Your task to perform on an android device: Do I have any events today? Image 0: 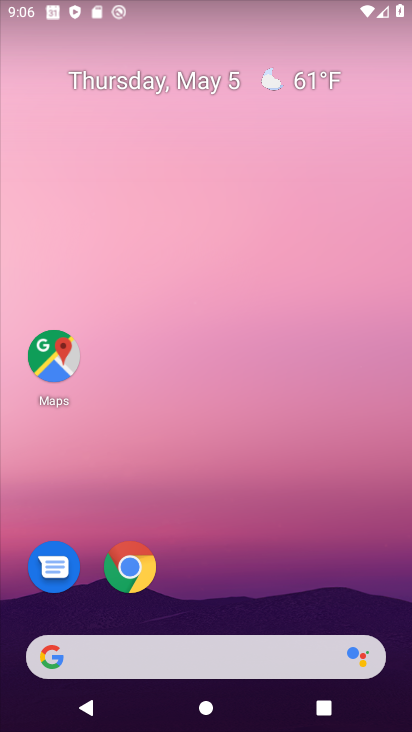
Step 0: drag from (236, 725) to (210, 146)
Your task to perform on an android device: Do I have any events today? Image 1: 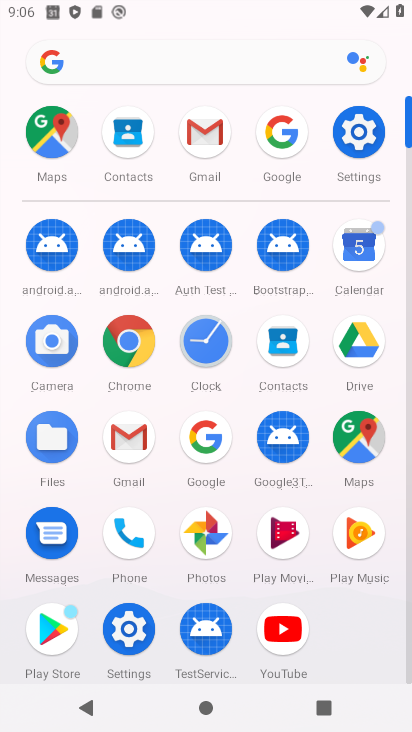
Step 1: click (357, 258)
Your task to perform on an android device: Do I have any events today? Image 2: 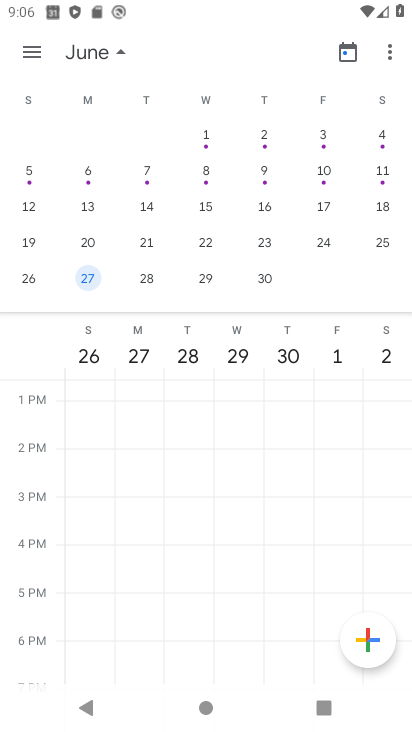
Step 2: drag from (13, 226) to (399, 185)
Your task to perform on an android device: Do I have any events today? Image 3: 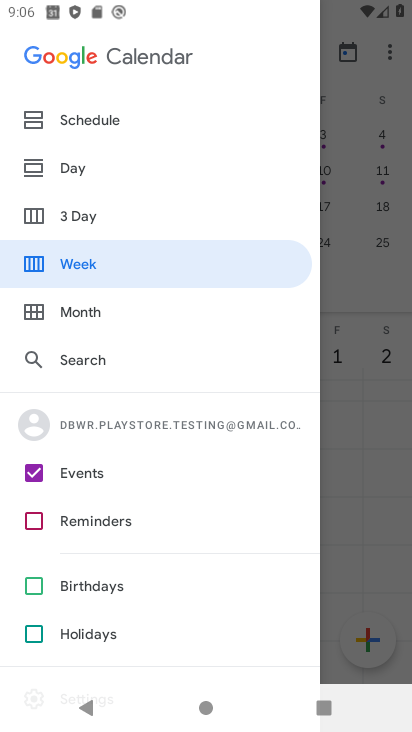
Step 3: click (347, 192)
Your task to perform on an android device: Do I have any events today? Image 4: 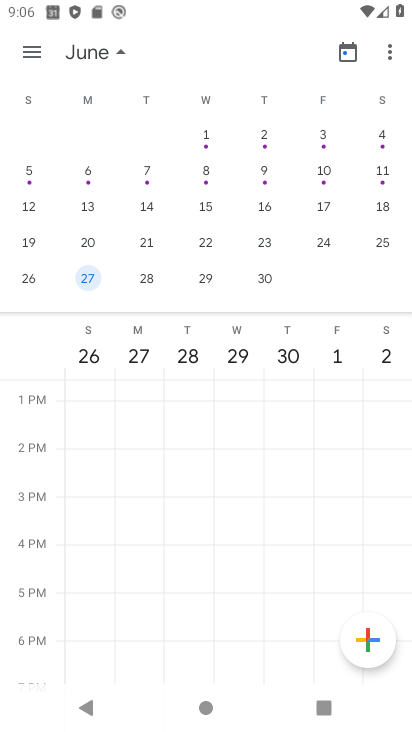
Step 4: drag from (79, 186) to (373, 168)
Your task to perform on an android device: Do I have any events today? Image 5: 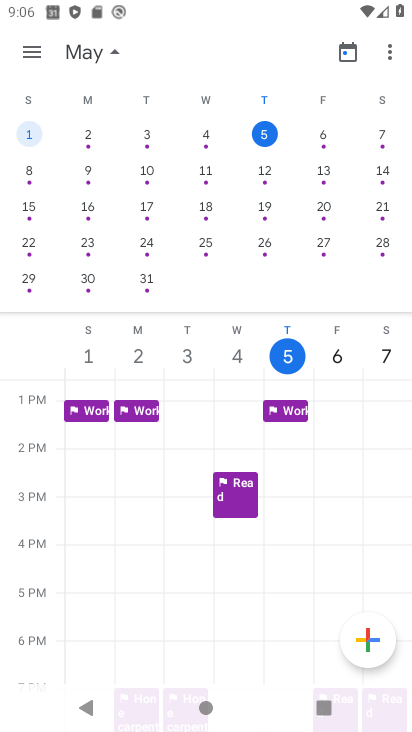
Step 5: click (268, 132)
Your task to perform on an android device: Do I have any events today? Image 6: 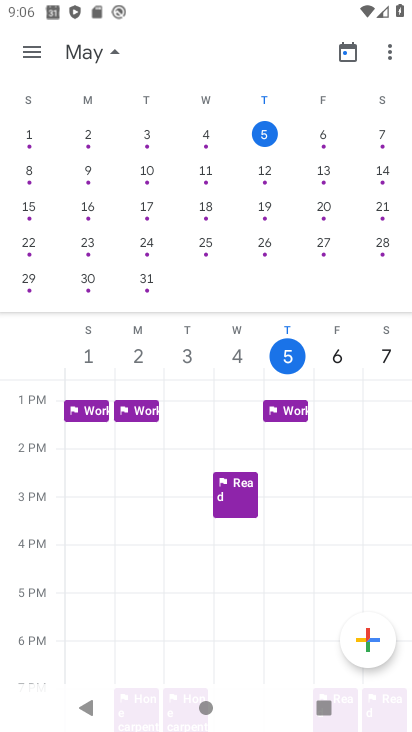
Step 6: click (263, 133)
Your task to perform on an android device: Do I have any events today? Image 7: 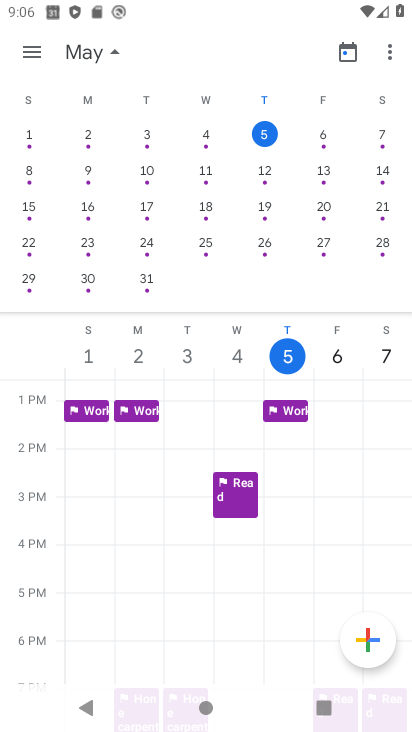
Step 7: click (263, 140)
Your task to perform on an android device: Do I have any events today? Image 8: 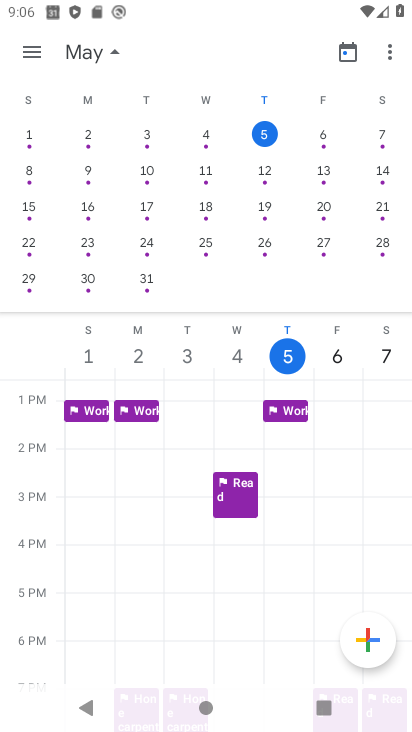
Step 8: task complete